Your task to perform on an android device: Open Google Chrome Image 0: 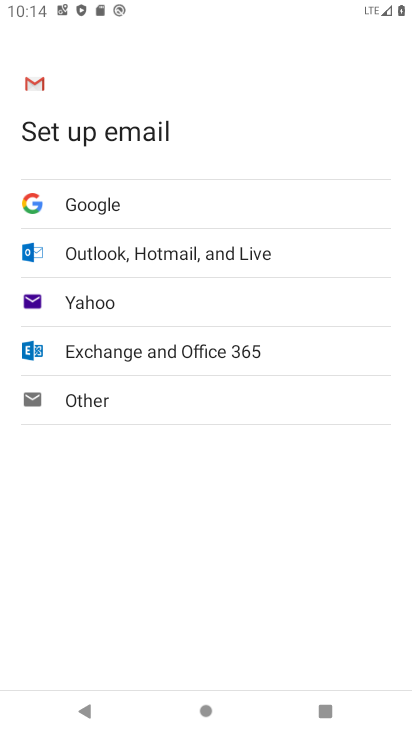
Step 0: press home button
Your task to perform on an android device: Open Google Chrome Image 1: 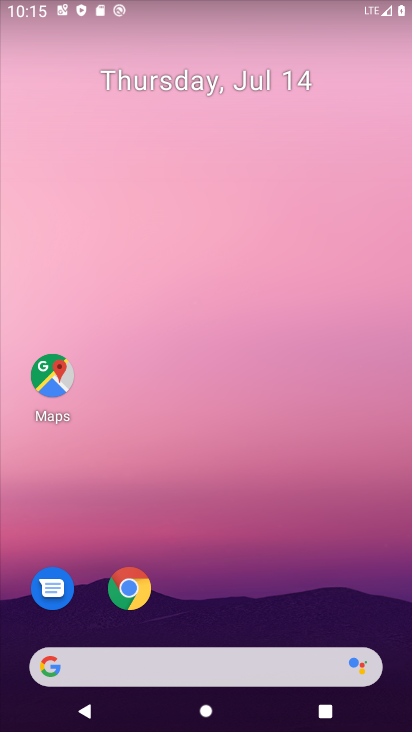
Step 1: drag from (308, 368) to (229, 2)
Your task to perform on an android device: Open Google Chrome Image 2: 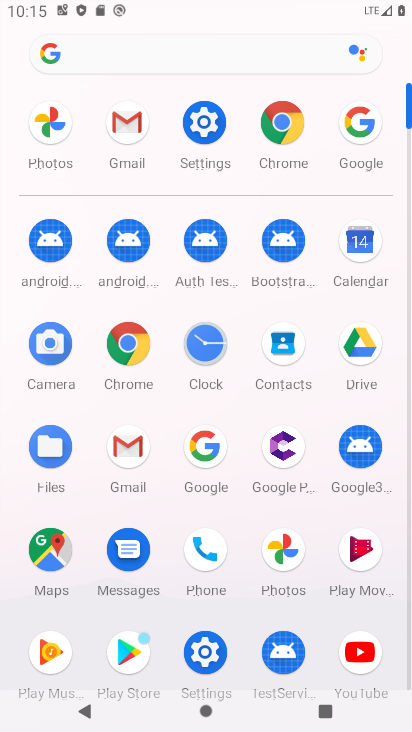
Step 2: click (137, 365)
Your task to perform on an android device: Open Google Chrome Image 3: 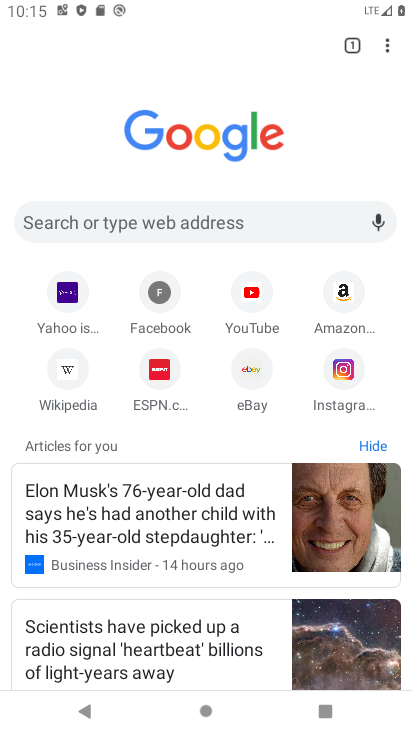
Step 3: task complete